Your task to perform on an android device: Go to Amazon Image 0: 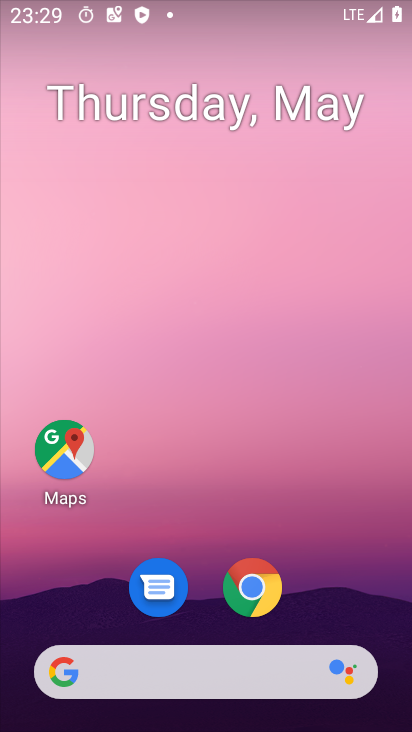
Step 0: click (252, 606)
Your task to perform on an android device: Go to Amazon Image 1: 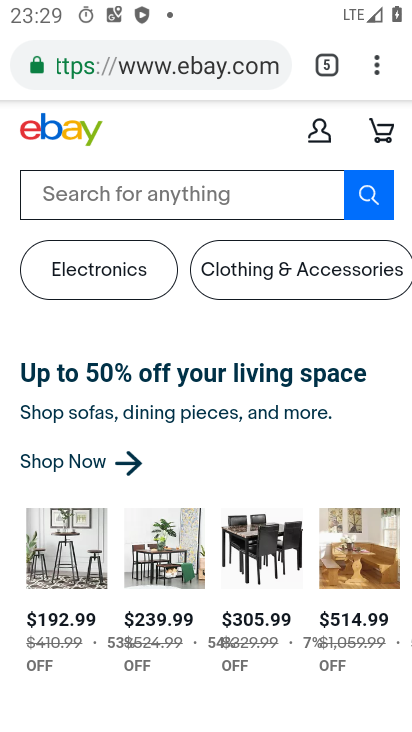
Step 1: click (109, 74)
Your task to perform on an android device: Go to Amazon Image 2: 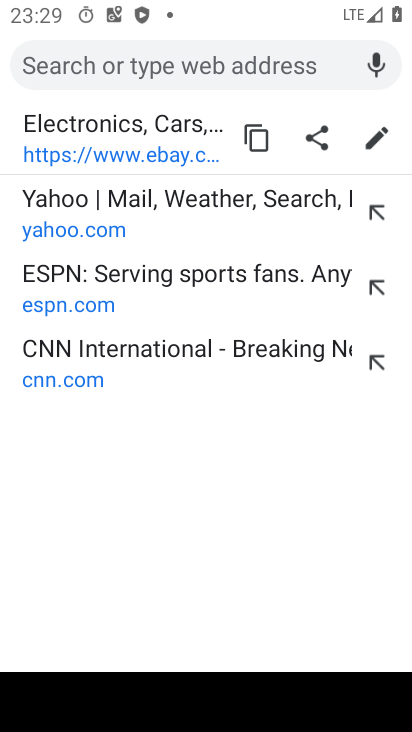
Step 2: type "amazon"
Your task to perform on an android device: Go to Amazon Image 3: 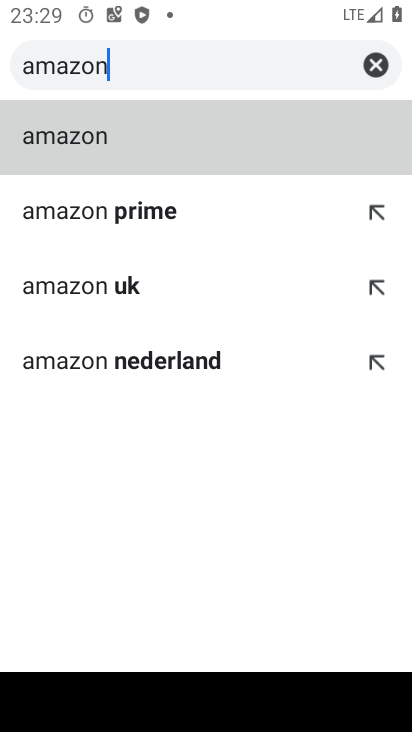
Step 3: click (93, 138)
Your task to perform on an android device: Go to Amazon Image 4: 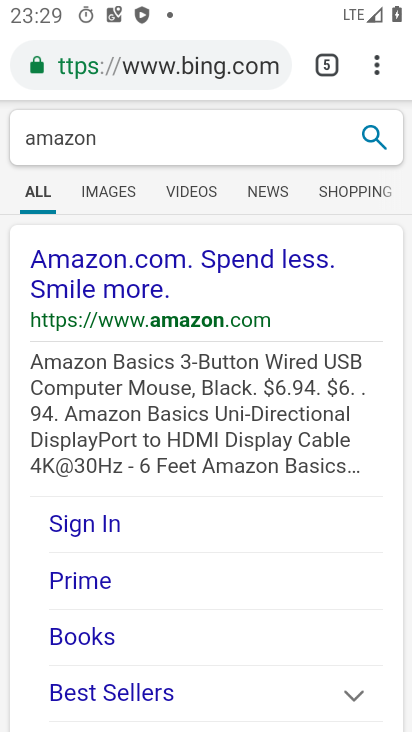
Step 4: click (86, 284)
Your task to perform on an android device: Go to Amazon Image 5: 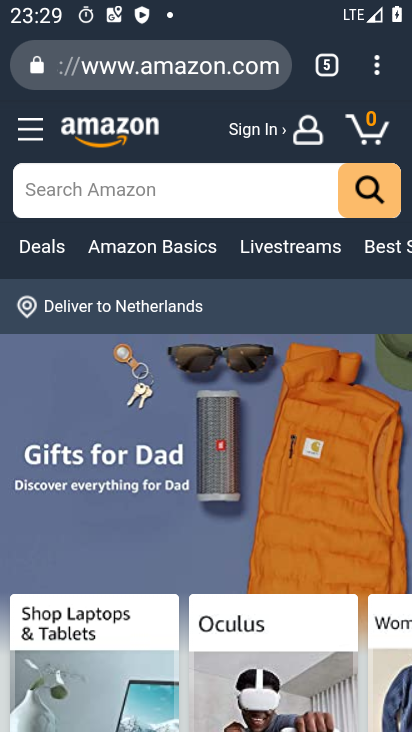
Step 5: task complete